Your task to perform on an android device: turn off notifications settings in the gmail app Image 0: 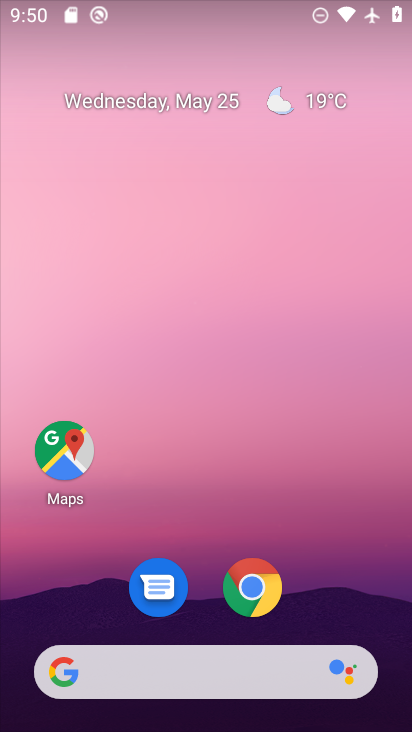
Step 0: drag from (370, 631) to (254, 7)
Your task to perform on an android device: turn off notifications settings in the gmail app Image 1: 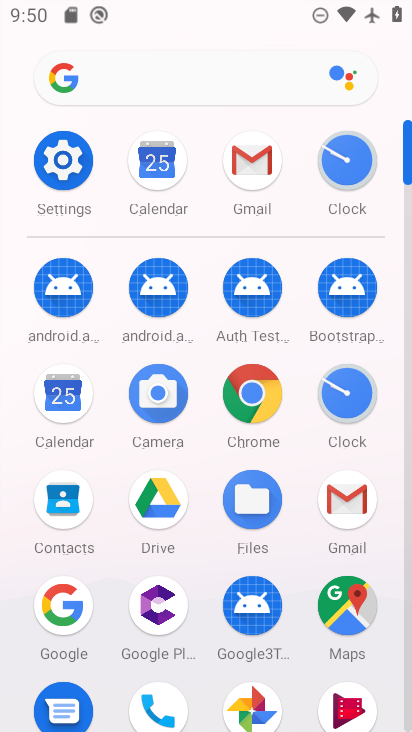
Step 1: click (411, 667)
Your task to perform on an android device: turn off notifications settings in the gmail app Image 2: 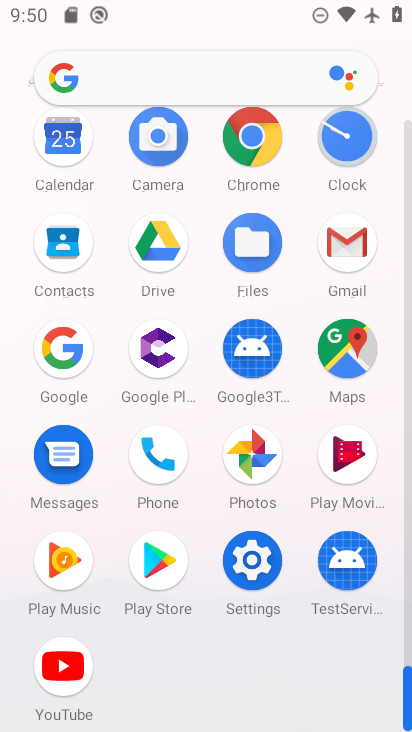
Step 2: click (343, 243)
Your task to perform on an android device: turn off notifications settings in the gmail app Image 3: 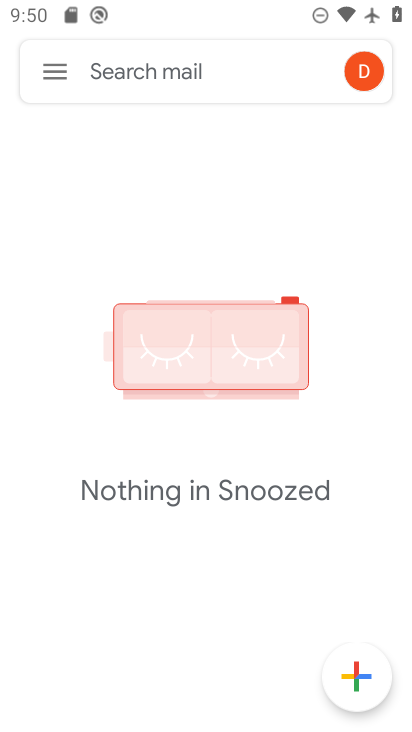
Step 3: click (49, 81)
Your task to perform on an android device: turn off notifications settings in the gmail app Image 4: 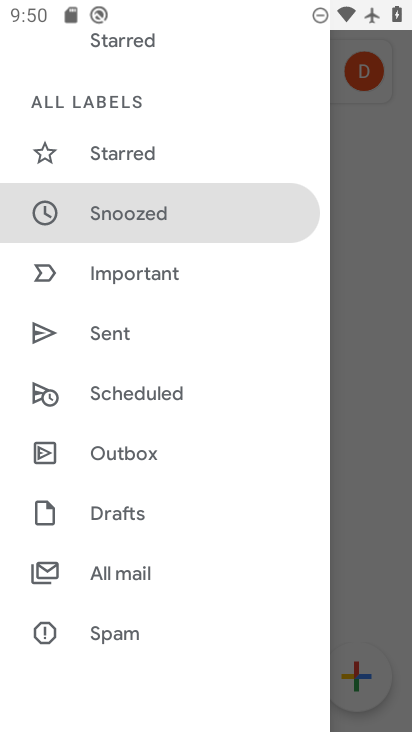
Step 4: drag from (232, 663) to (277, 162)
Your task to perform on an android device: turn off notifications settings in the gmail app Image 5: 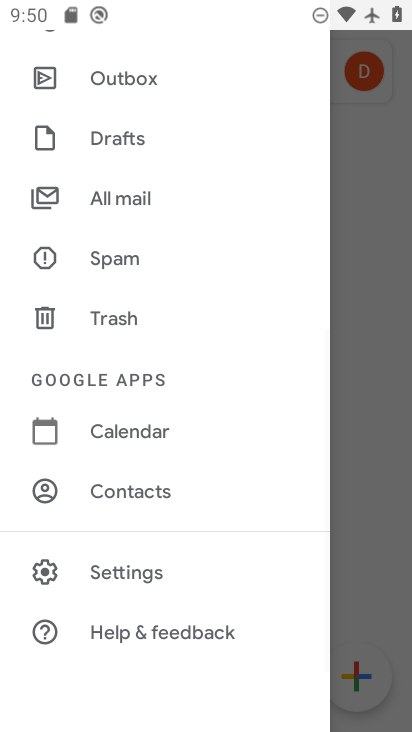
Step 5: click (98, 564)
Your task to perform on an android device: turn off notifications settings in the gmail app Image 6: 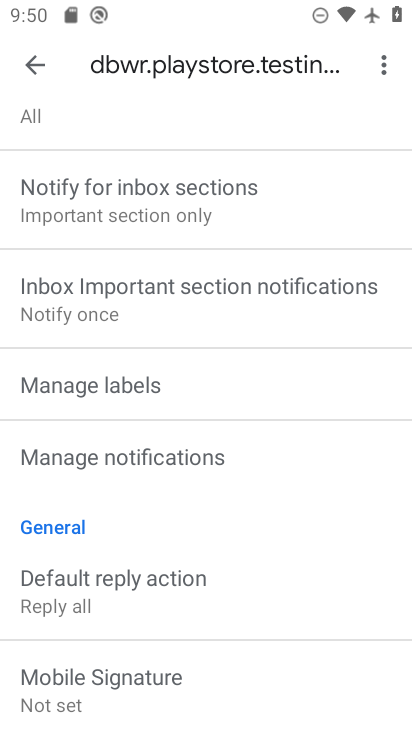
Step 6: click (150, 452)
Your task to perform on an android device: turn off notifications settings in the gmail app Image 7: 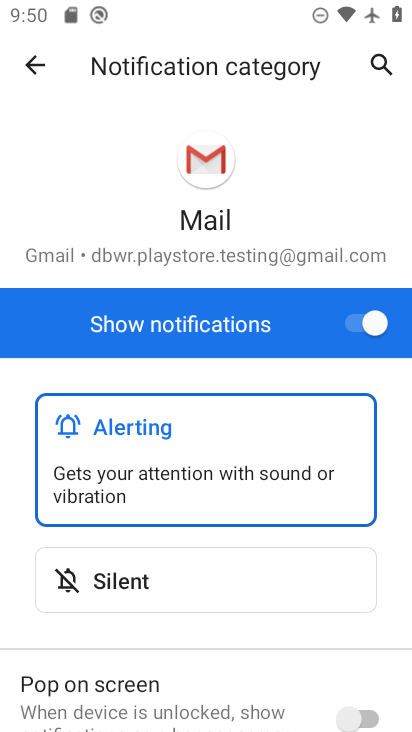
Step 7: click (349, 318)
Your task to perform on an android device: turn off notifications settings in the gmail app Image 8: 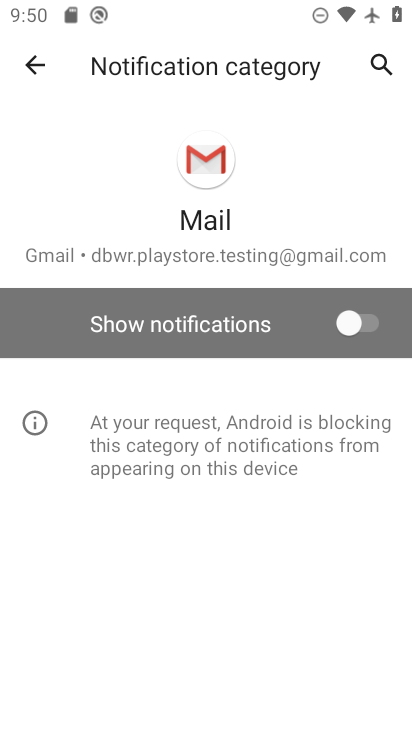
Step 8: task complete